Your task to perform on an android device: Open the web browser Image 0: 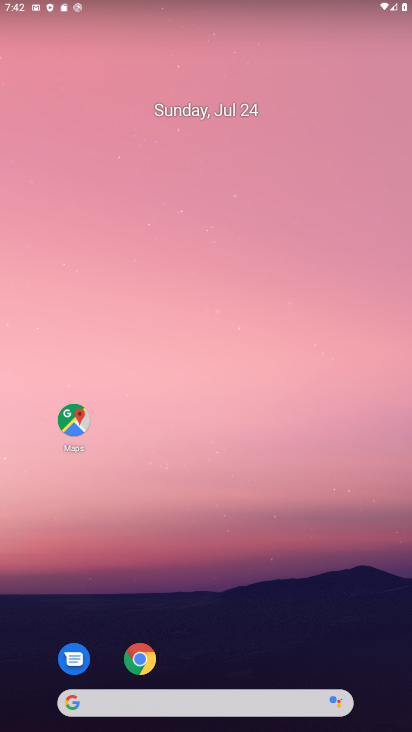
Step 0: drag from (355, 696) to (255, 55)
Your task to perform on an android device: Open the web browser Image 1: 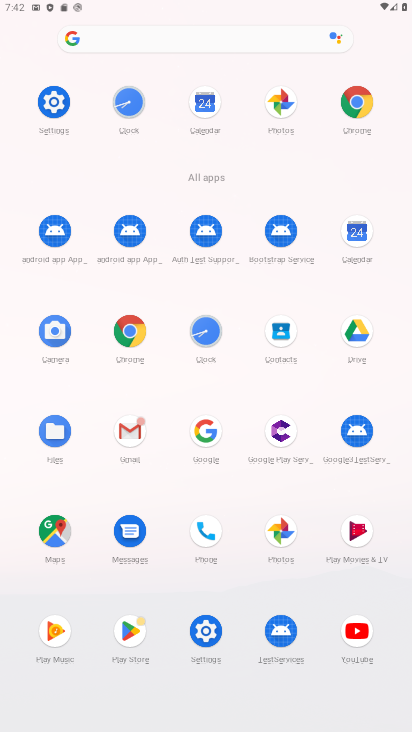
Step 1: click (363, 114)
Your task to perform on an android device: Open the web browser Image 2: 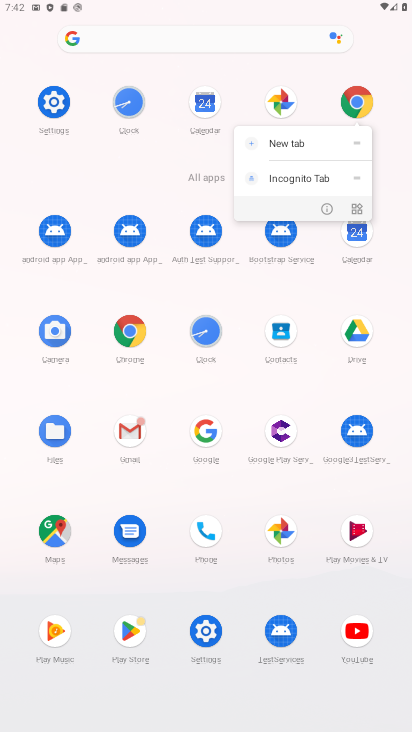
Step 2: click (370, 106)
Your task to perform on an android device: Open the web browser Image 3: 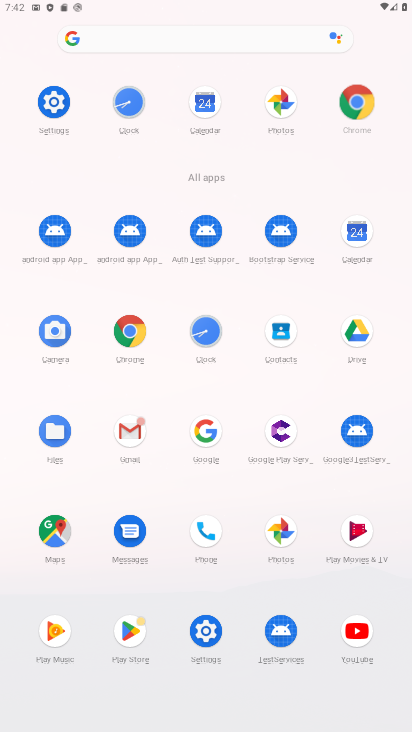
Step 3: click (361, 100)
Your task to perform on an android device: Open the web browser Image 4: 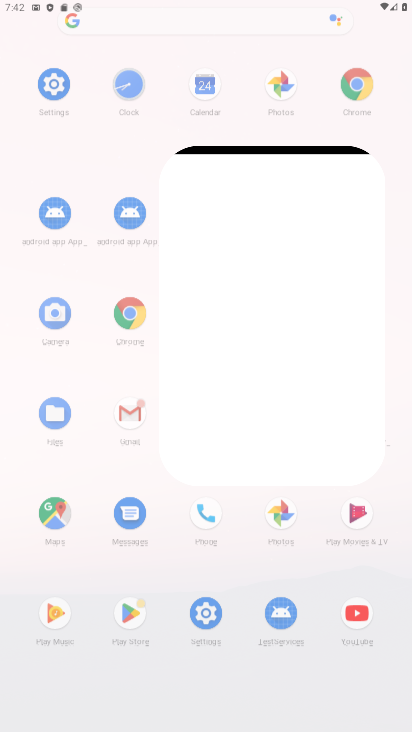
Step 4: click (359, 102)
Your task to perform on an android device: Open the web browser Image 5: 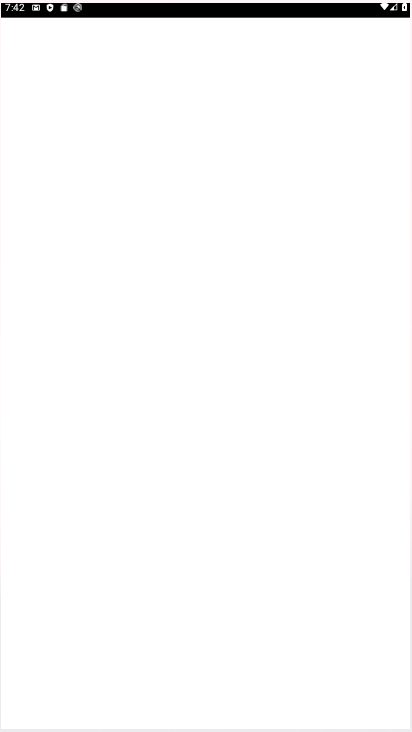
Step 5: click (328, 100)
Your task to perform on an android device: Open the web browser Image 6: 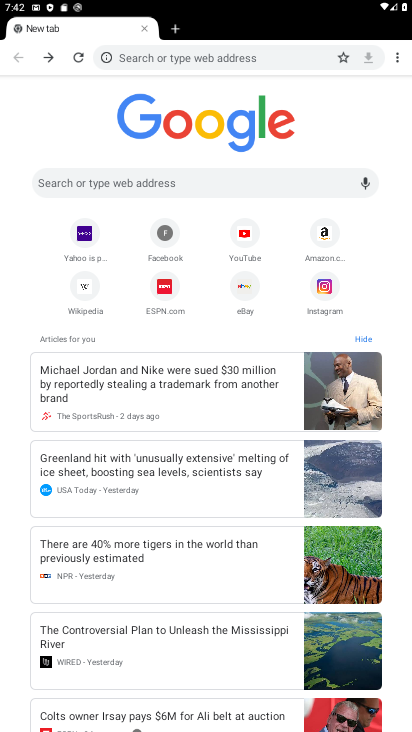
Step 6: click (159, 189)
Your task to perform on an android device: Open the web browser Image 7: 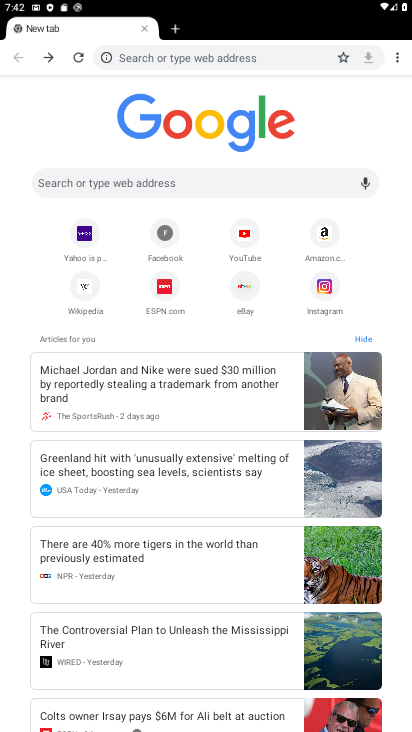
Step 7: click (159, 189)
Your task to perform on an android device: Open the web browser Image 8: 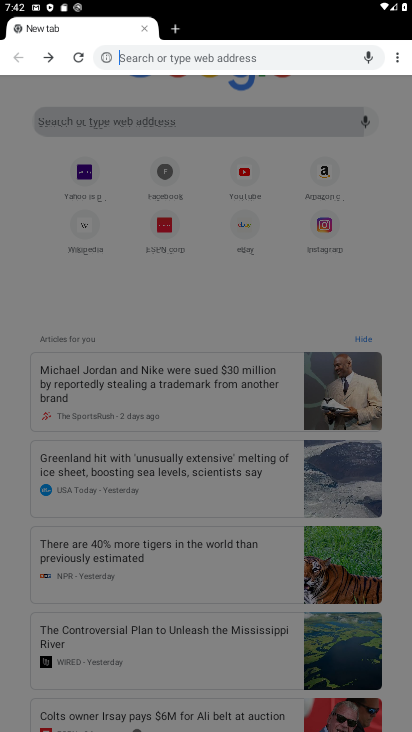
Step 8: click (158, 187)
Your task to perform on an android device: Open the web browser Image 9: 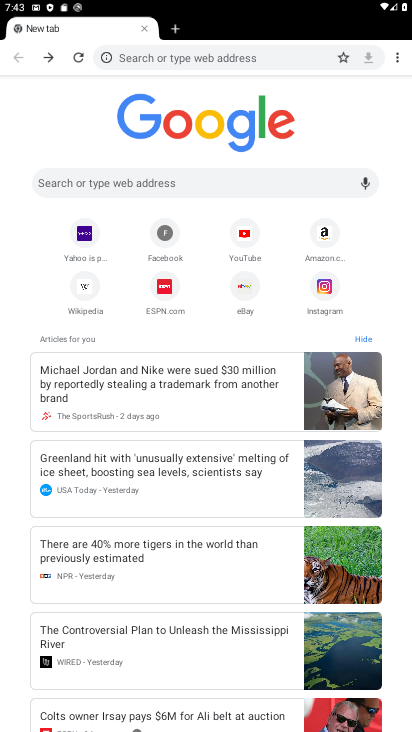
Step 9: click (203, 179)
Your task to perform on an android device: Open the web browser Image 10: 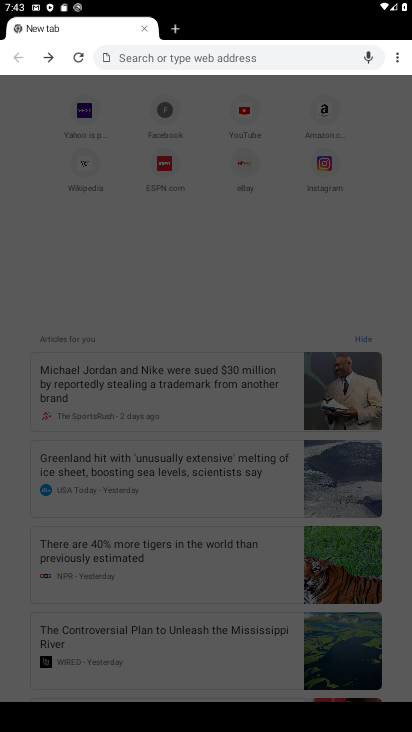
Step 10: task complete